Your task to perform on an android device: open wifi settings Image 0: 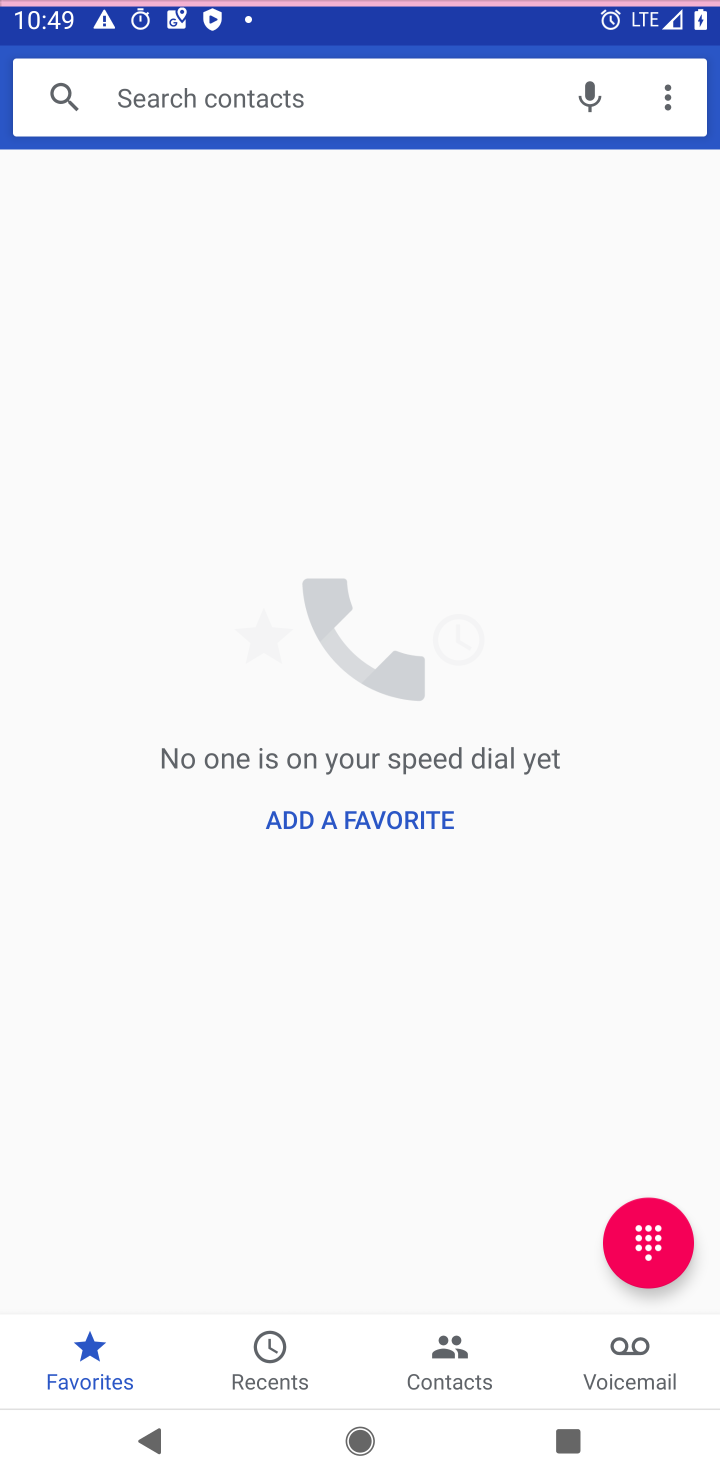
Step 0: press home button
Your task to perform on an android device: open wifi settings Image 1: 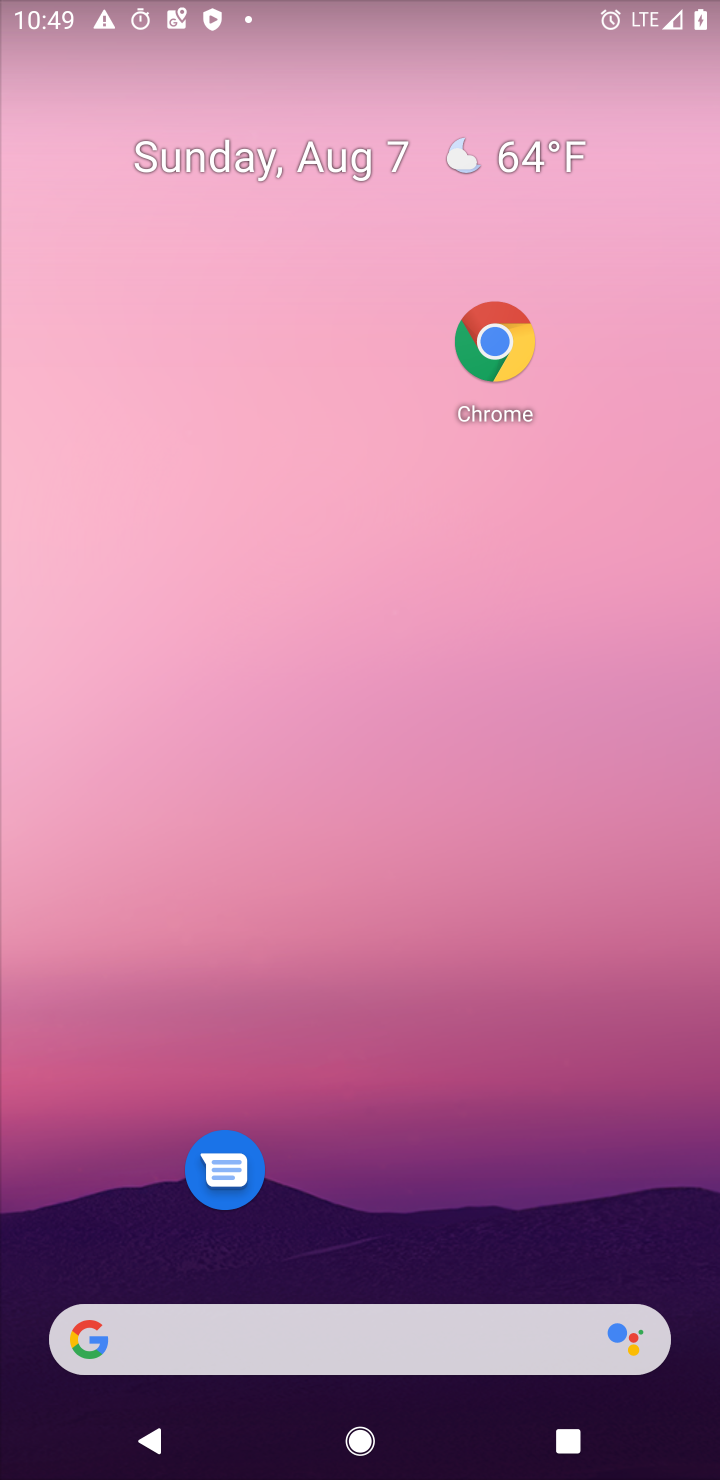
Step 1: drag from (458, 1346) to (518, 4)
Your task to perform on an android device: open wifi settings Image 2: 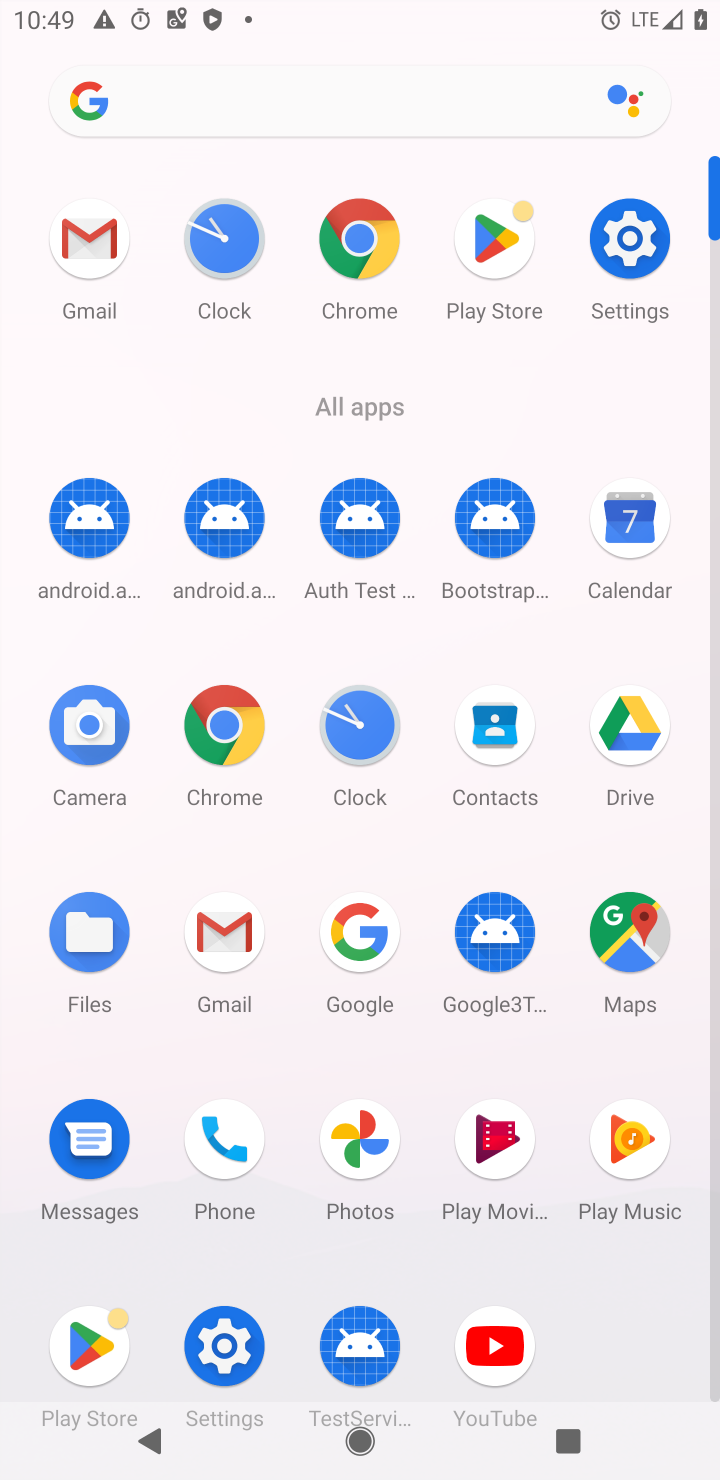
Step 2: click (615, 221)
Your task to perform on an android device: open wifi settings Image 3: 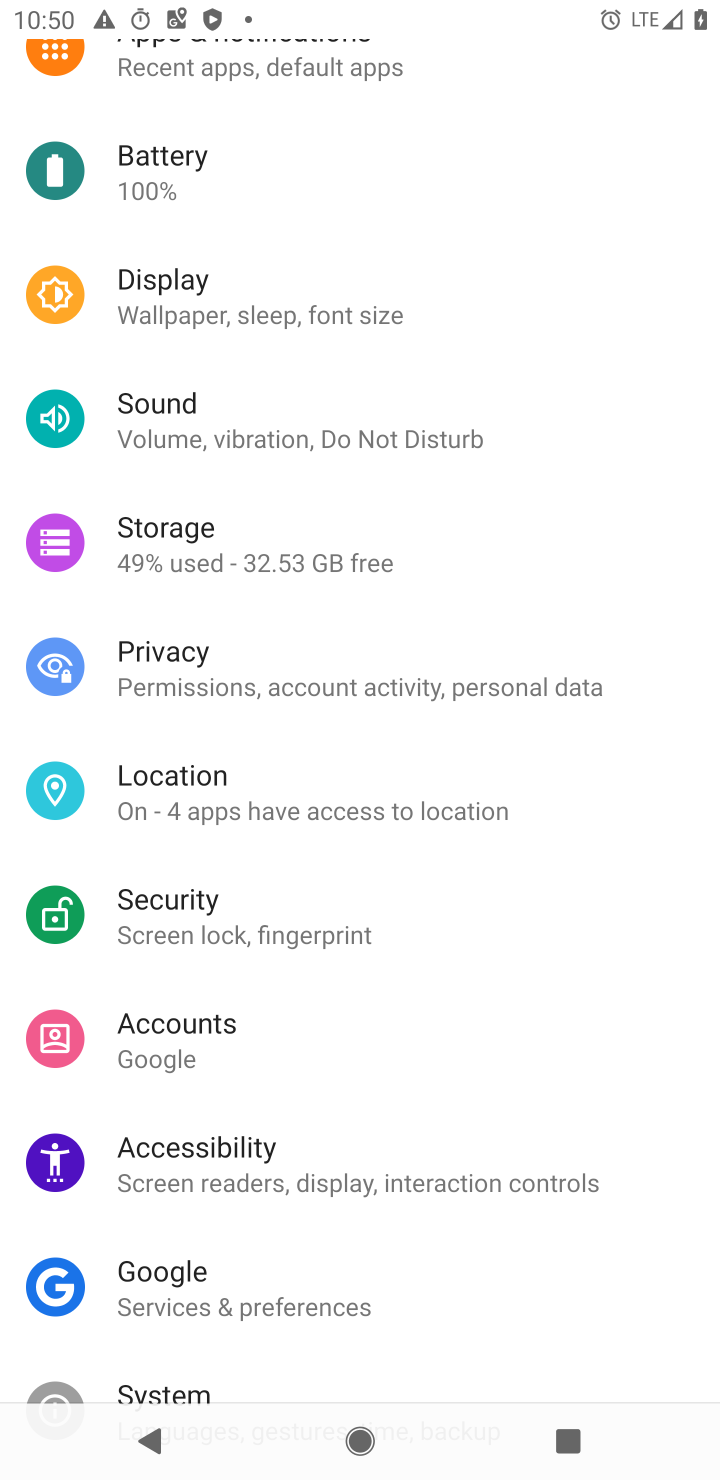
Step 3: click (524, 259)
Your task to perform on an android device: open wifi settings Image 4: 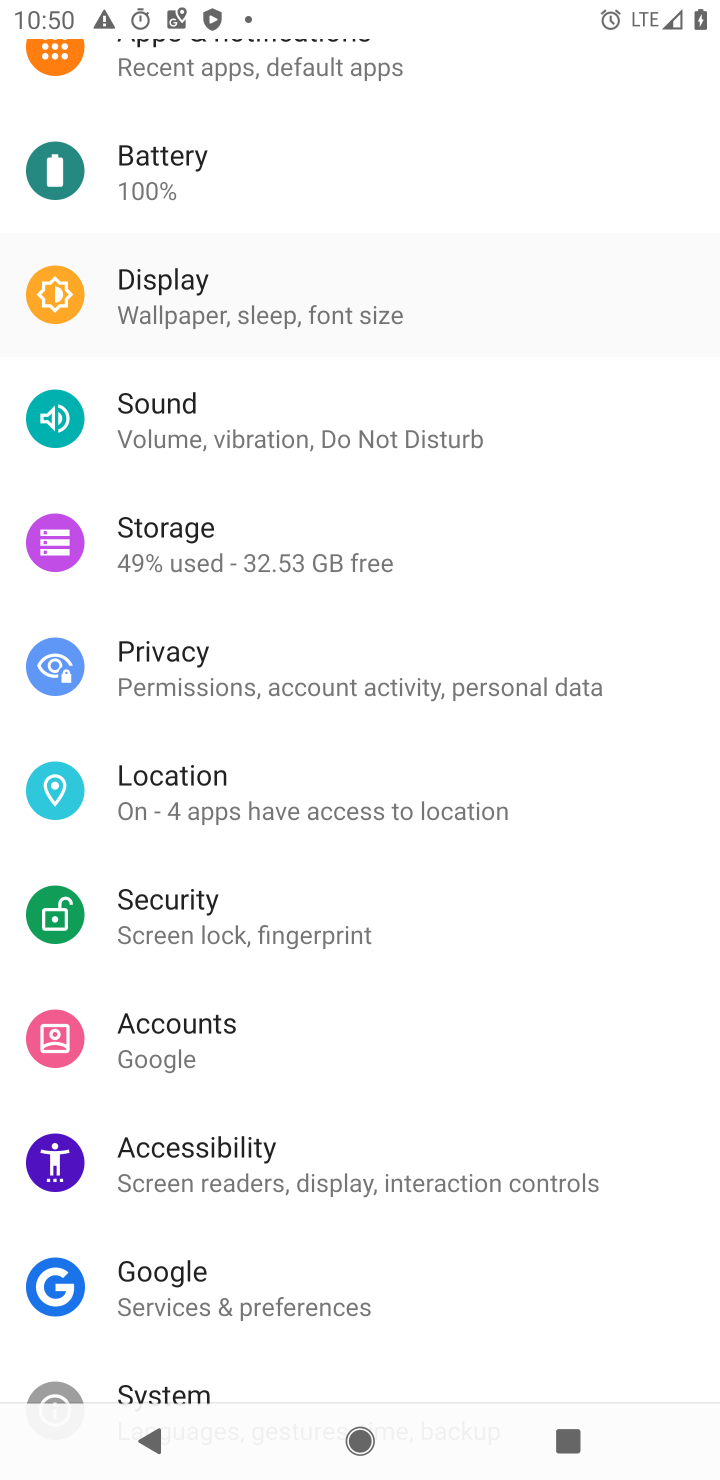
Step 4: drag from (549, 249) to (636, 1104)
Your task to perform on an android device: open wifi settings Image 5: 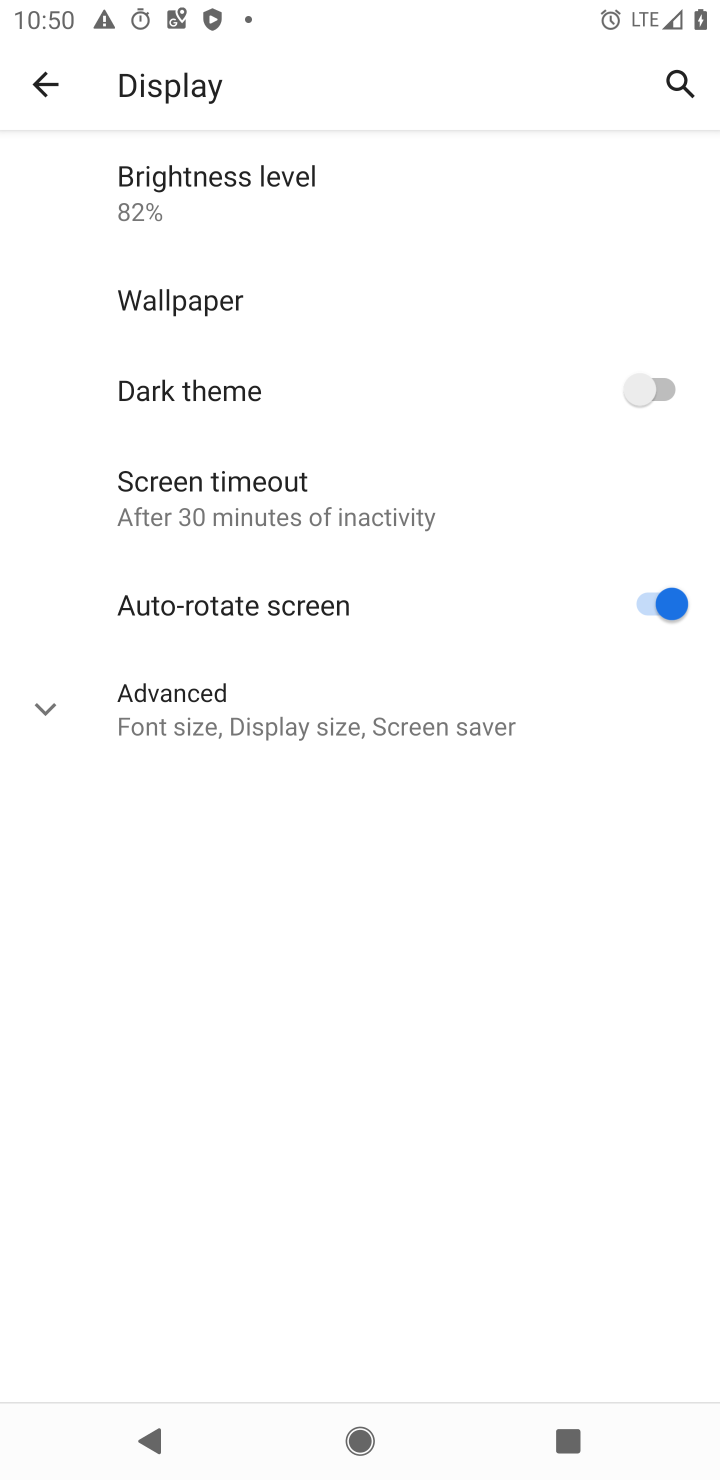
Step 5: press back button
Your task to perform on an android device: open wifi settings Image 6: 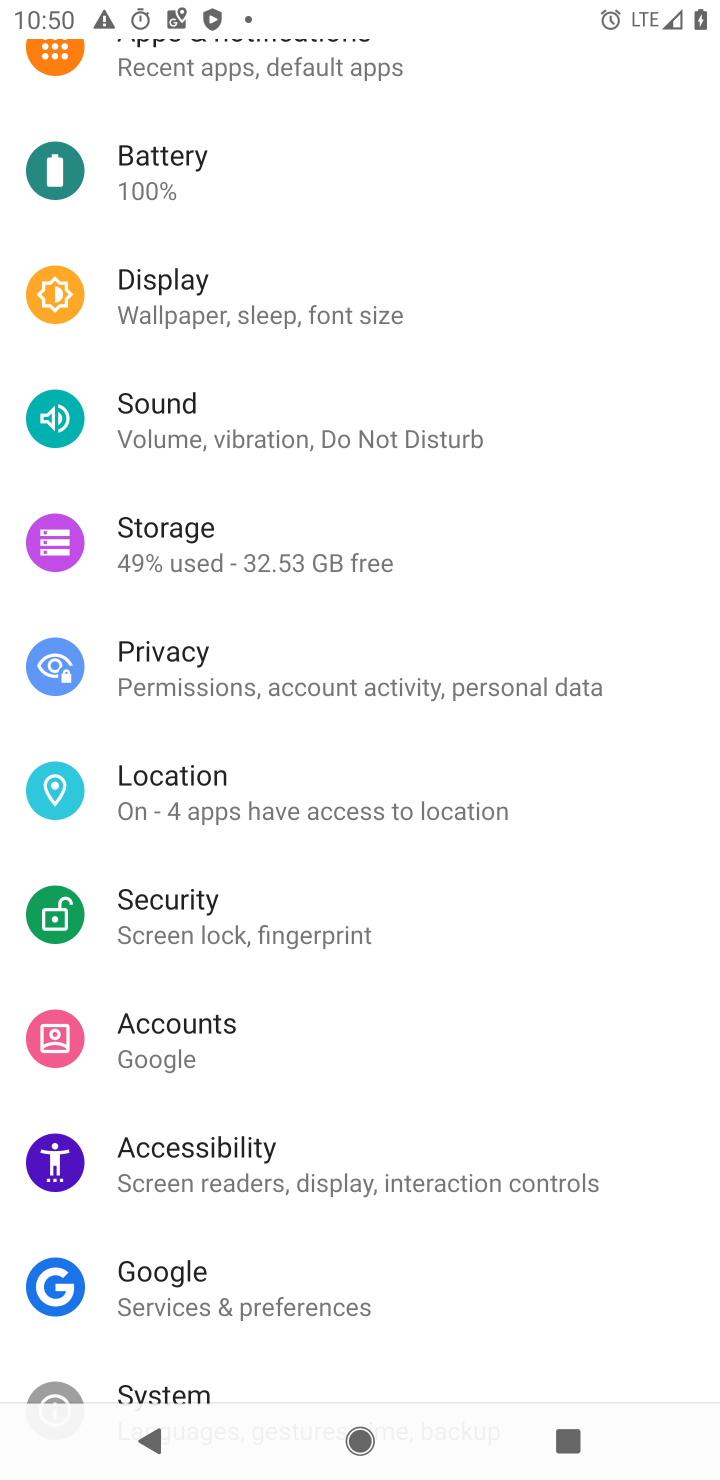
Step 6: drag from (659, 199) to (707, 1207)
Your task to perform on an android device: open wifi settings Image 7: 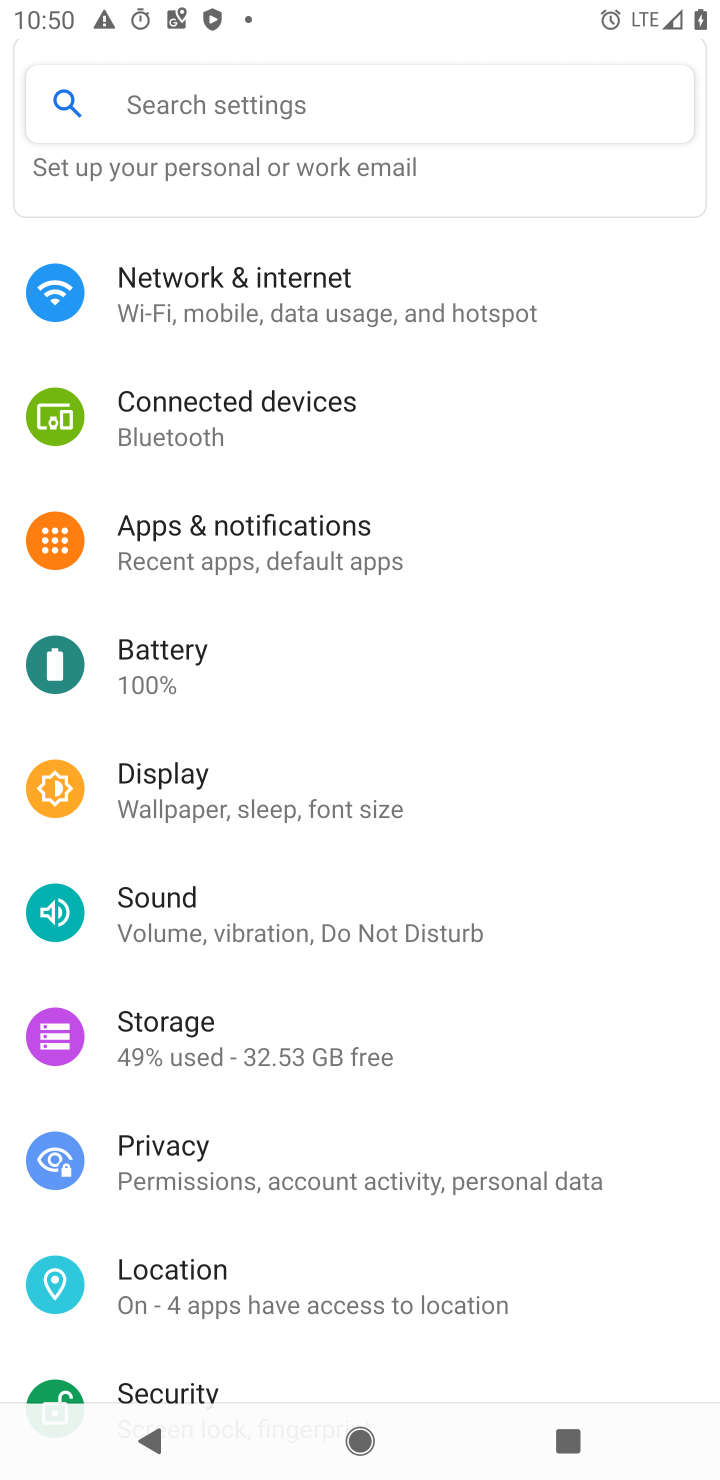
Step 7: click (427, 299)
Your task to perform on an android device: open wifi settings Image 8: 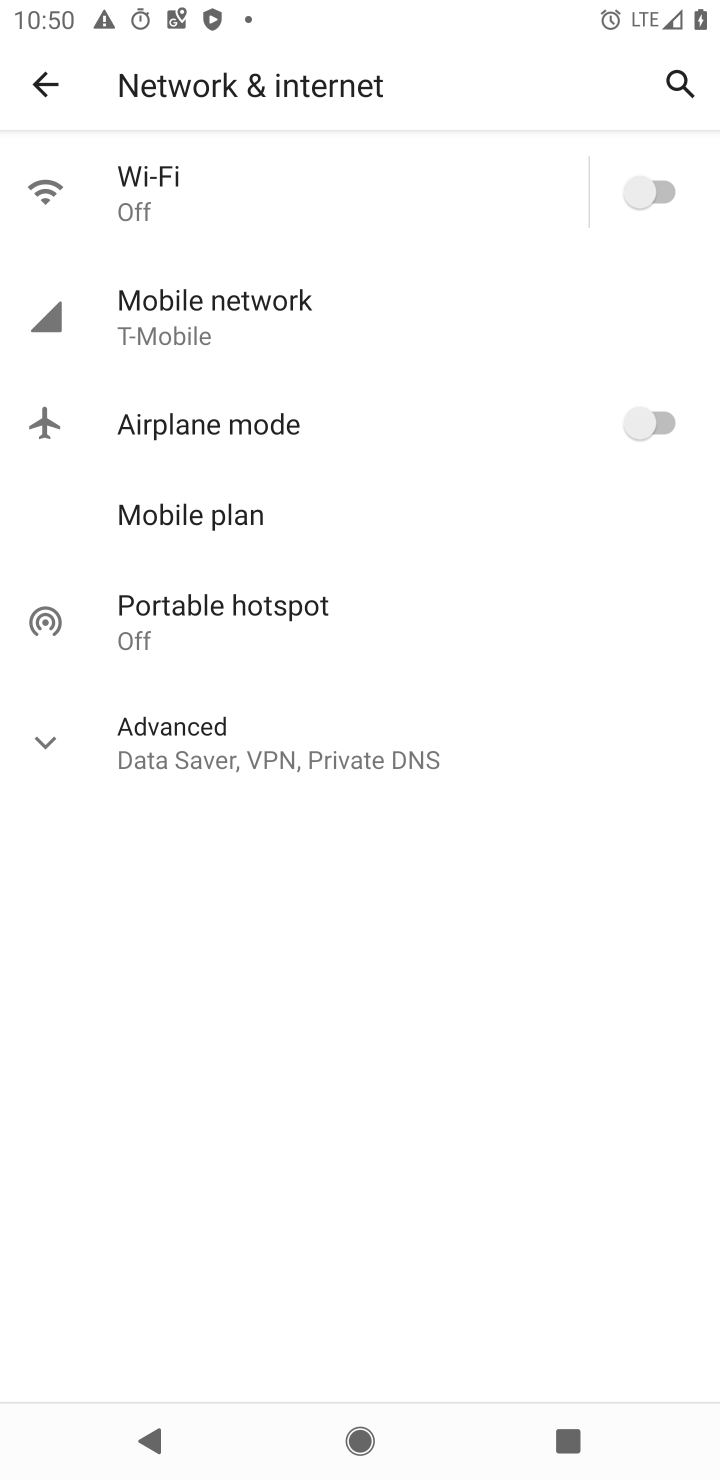
Step 8: click (169, 203)
Your task to perform on an android device: open wifi settings Image 9: 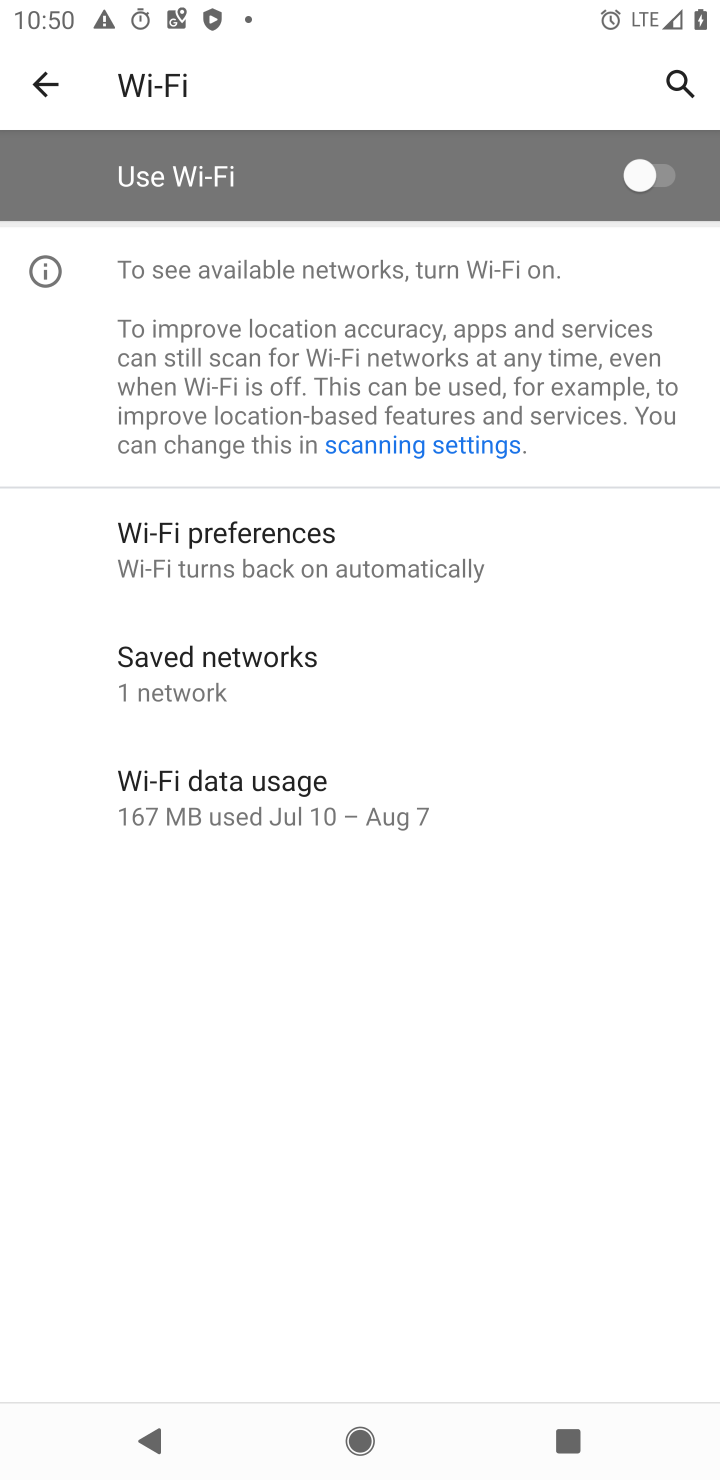
Step 9: task complete